Your task to perform on an android device: check battery use Image 0: 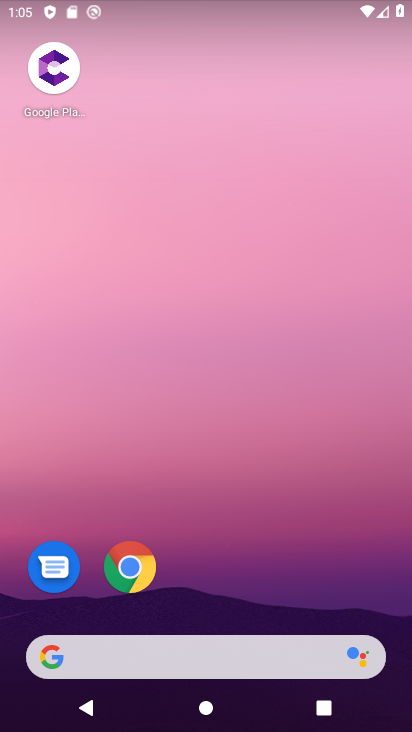
Step 0: drag from (394, 626) to (289, 43)
Your task to perform on an android device: check battery use Image 1: 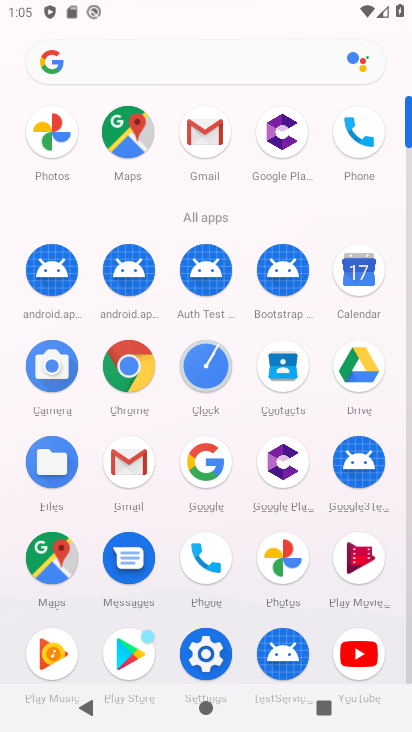
Step 1: click (410, 674)
Your task to perform on an android device: check battery use Image 2: 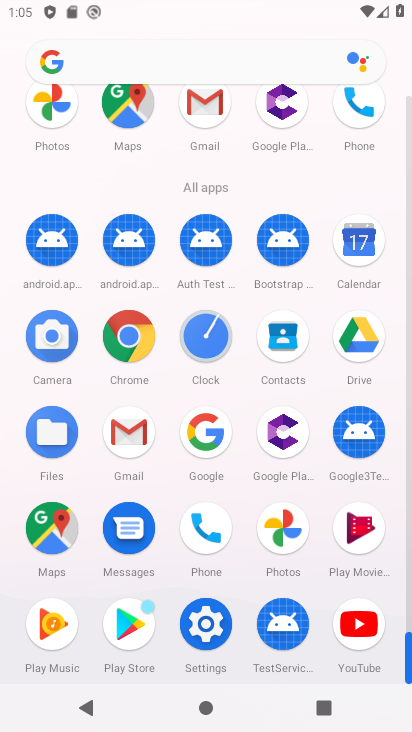
Step 2: click (204, 626)
Your task to perform on an android device: check battery use Image 3: 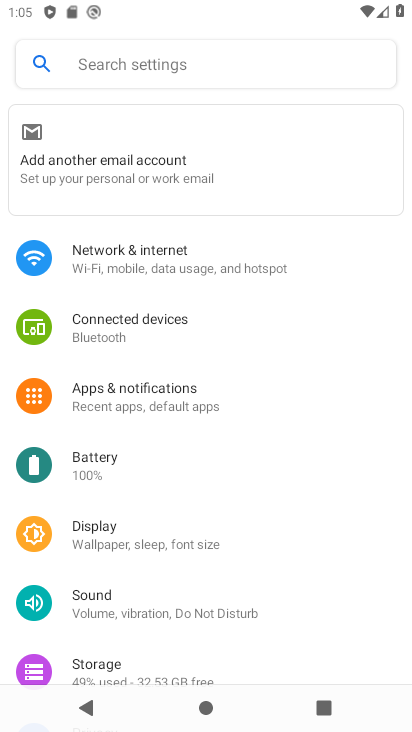
Step 3: click (101, 466)
Your task to perform on an android device: check battery use Image 4: 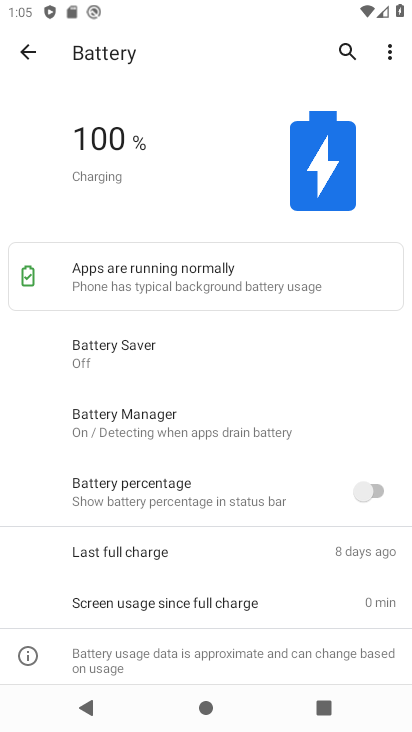
Step 4: drag from (309, 567) to (275, 184)
Your task to perform on an android device: check battery use Image 5: 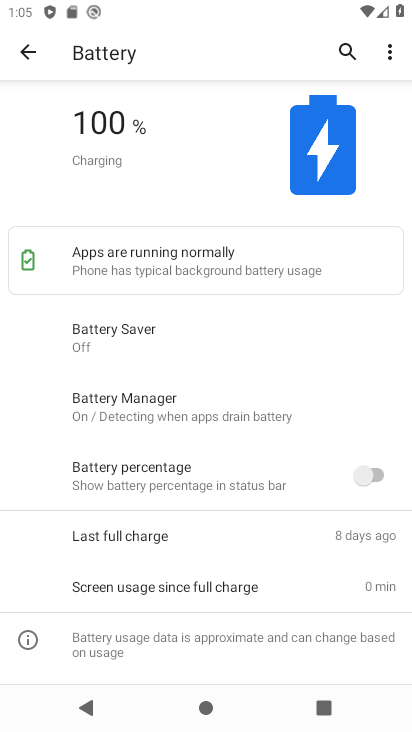
Step 5: click (388, 57)
Your task to perform on an android device: check battery use Image 6: 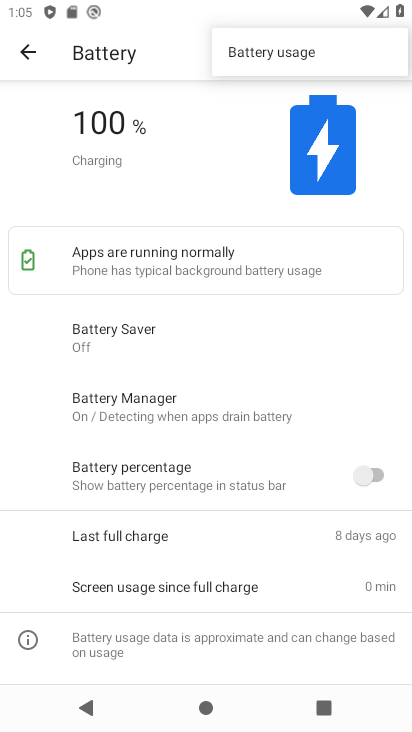
Step 6: click (258, 55)
Your task to perform on an android device: check battery use Image 7: 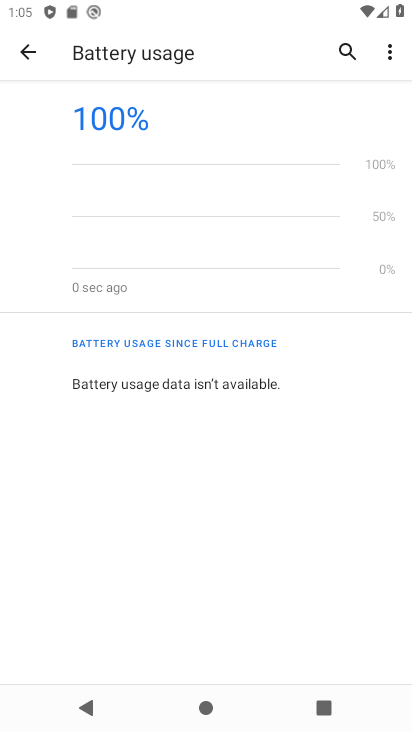
Step 7: task complete